Your task to perform on an android device: Open Youtube and go to "Your channel" Image 0: 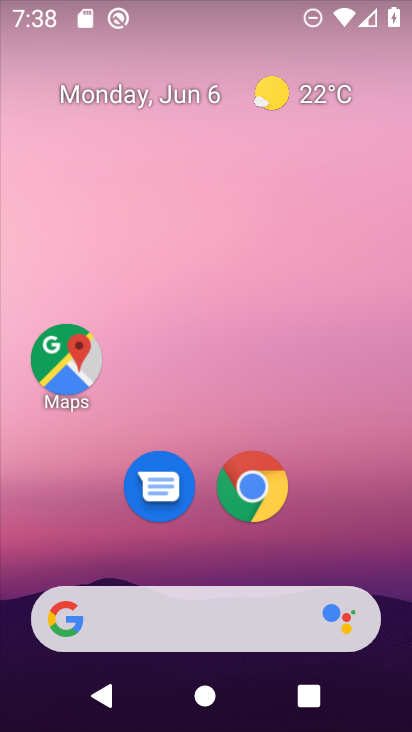
Step 0: drag from (386, 632) to (142, 50)
Your task to perform on an android device: Open Youtube and go to "Your channel" Image 1: 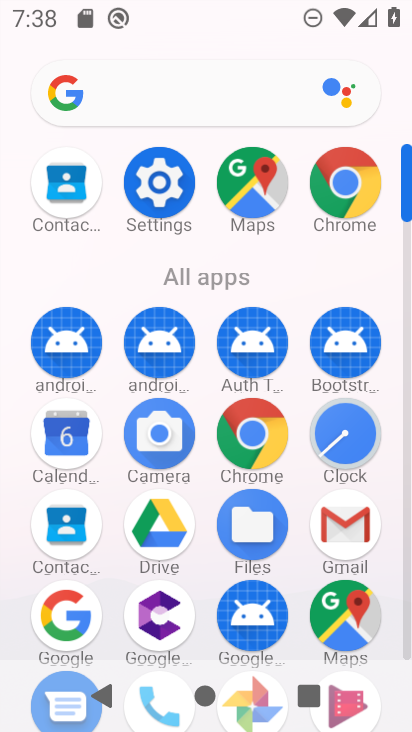
Step 1: drag from (302, 633) to (265, 213)
Your task to perform on an android device: Open Youtube and go to "Your channel" Image 2: 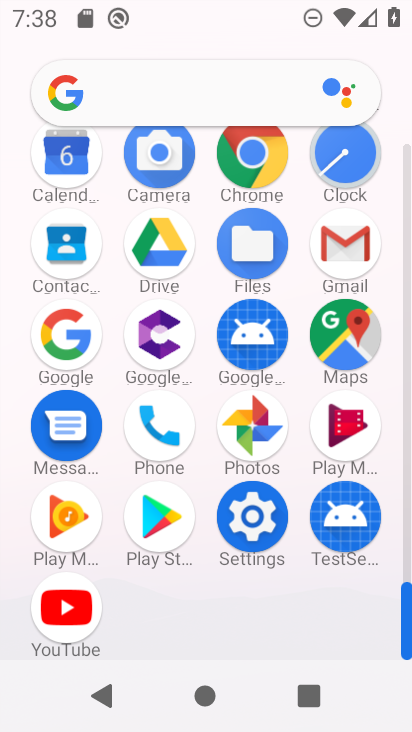
Step 2: click (71, 605)
Your task to perform on an android device: Open Youtube and go to "Your channel" Image 3: 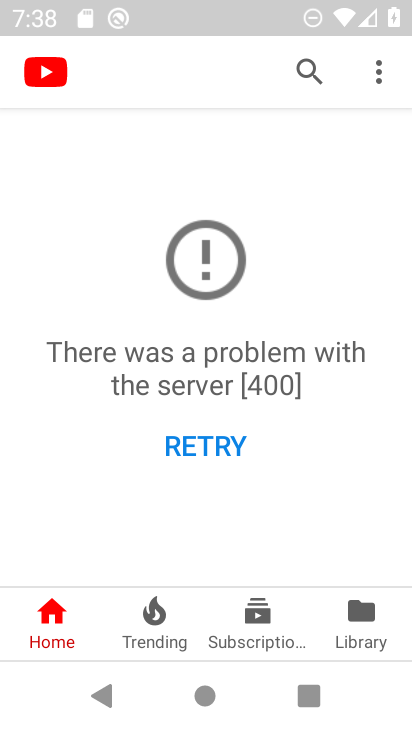
Step 3: click (211, 453)
Your task to perform on an android device: Open Youtube and go to "Your channel" Image 4: 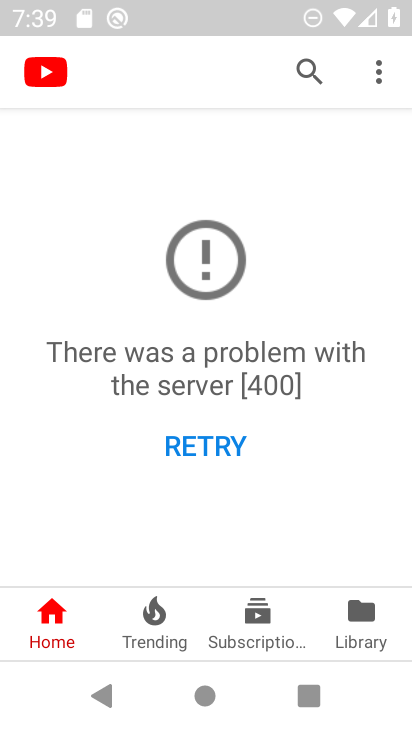
Step 4: task complete